Your task to perform on an android device: Open Yahoo.com Image 0: 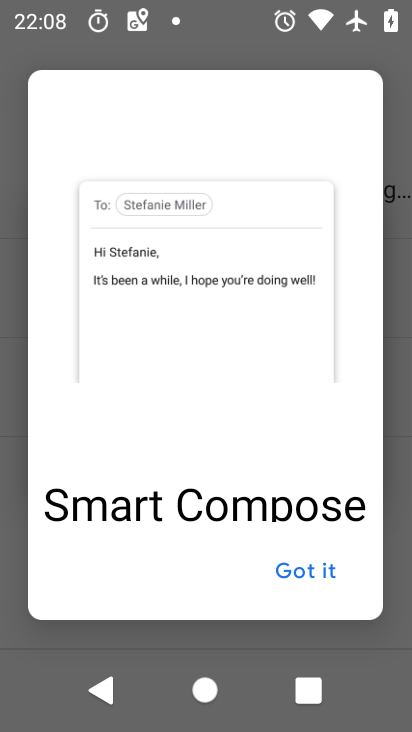
Step 0: press home button
Your task to perform on an android device: Open Yahoo.com Image 1: 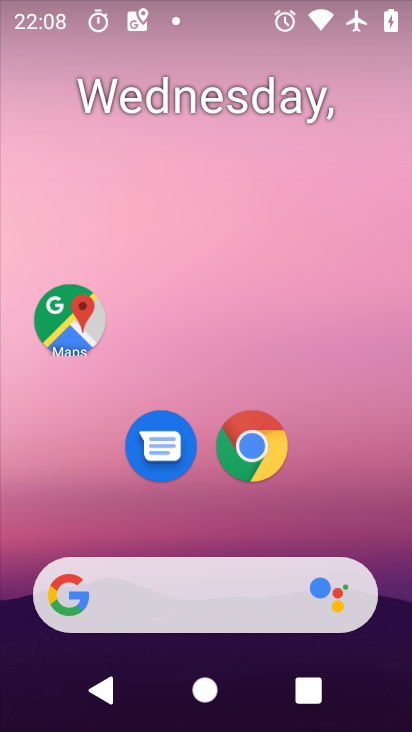
Step 1: click (250, 460)
Your task to perform on an android device: Open Yahoo.com Image 2: 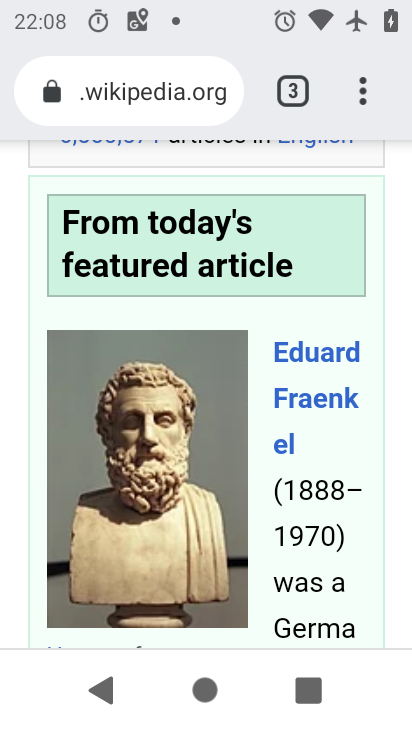
Step 2: drag from (361, 77) to (174, 185)
Your task to perform on an android device: Open Yahoo.com Image 3: 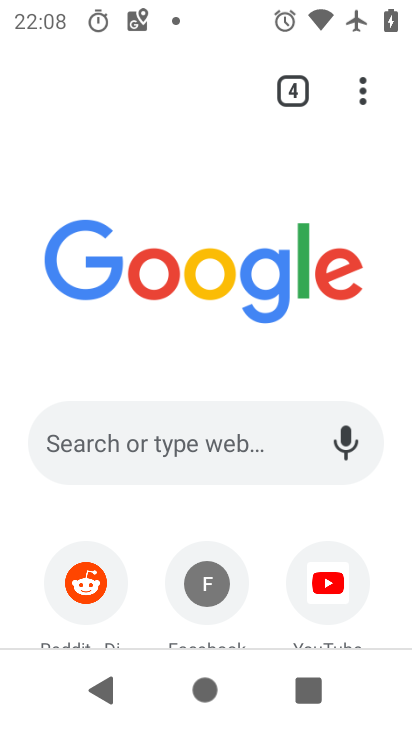
Step 3: drag from (221, 448) to (343, 71)
Your task to perform on an android device: Open Yahoo.com Image 4: 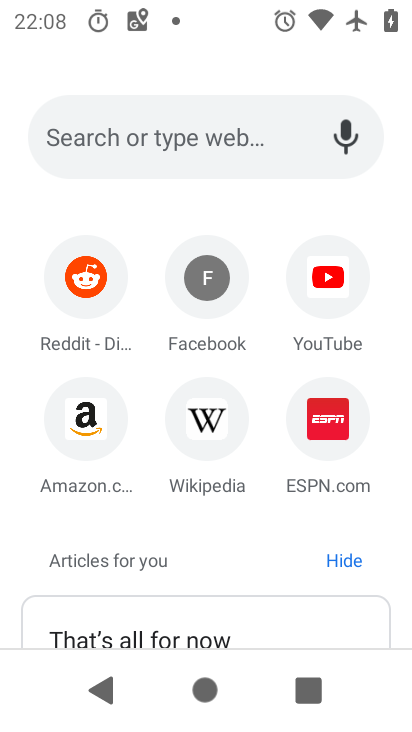
Step 4: click (172, 144)
Your task to perform on an android device: Open Yahoo.com Image 5: 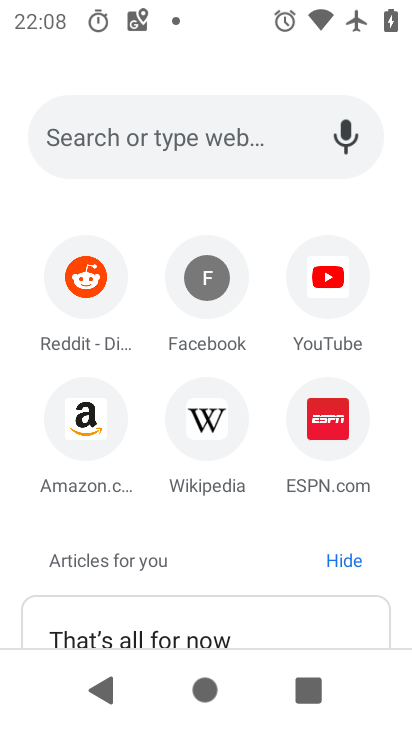
Step 5: click (164, 129)
Your task to perform on an android device: Open Yahoo.com Image 6: 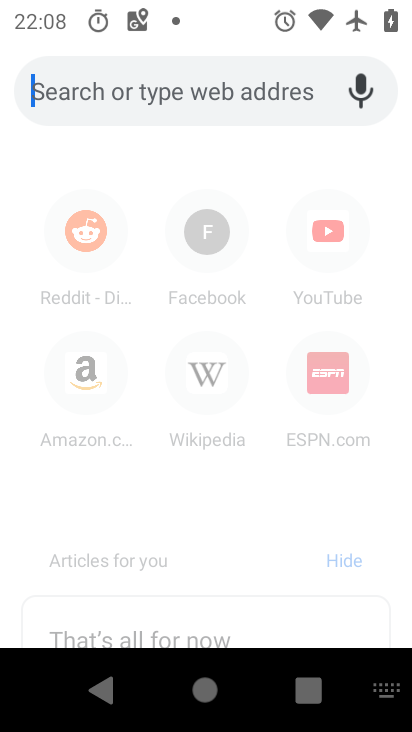
Step 6: type "yahoo.com"
Your task to perform on an android device: Open Yahoo.com Image 7: 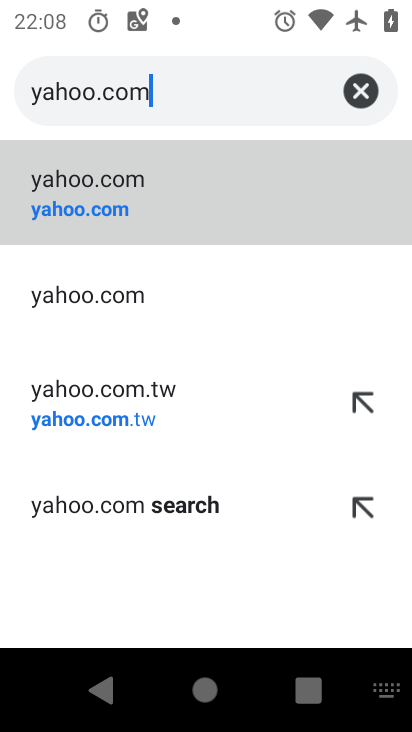
Step 7: click (49, 193)
Your task to perform on an android device: Open Yahoo.com Image 8: 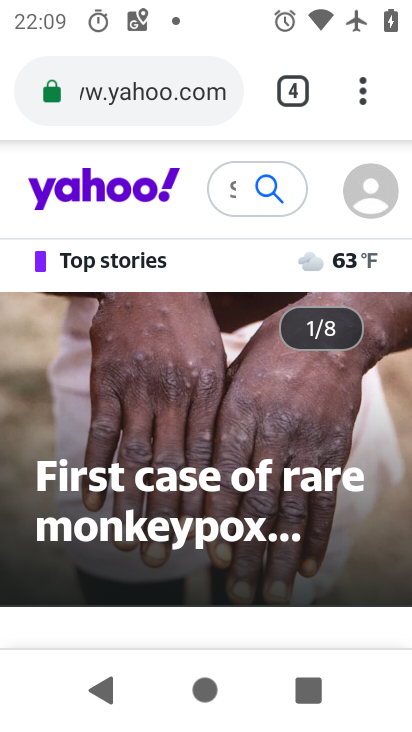
Step 8: task complete